Your task to perform on an android device: turn on notifications settings in the gmail app Image 0: 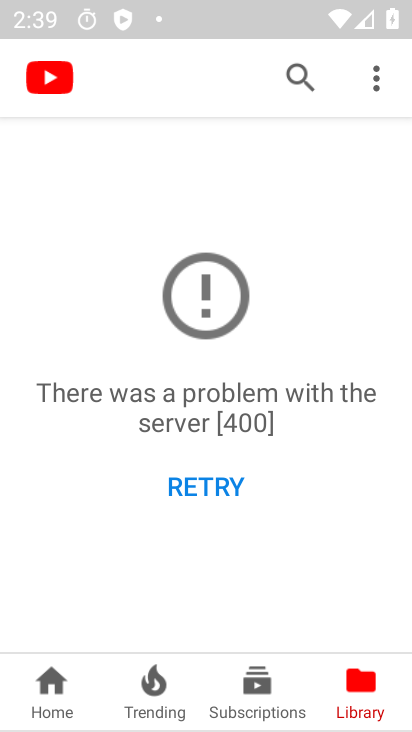
Step 0: press home button
Your task to perform on an android device: turn on notifications settings in the gmail app Image 1: 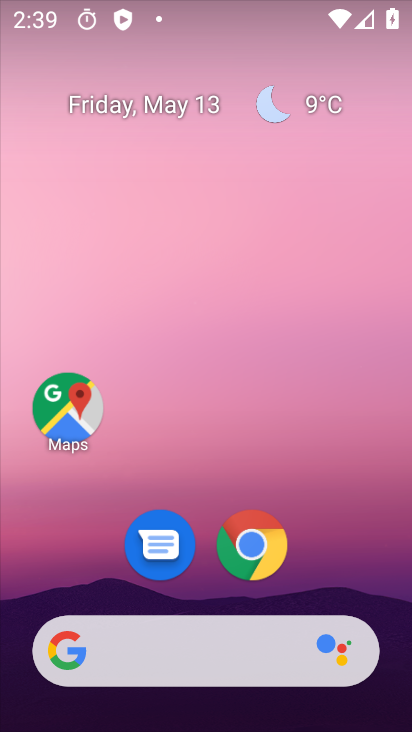
Step 1: drag from (301, 564) to (362, 146)
Your task to perform on an android device: turn on notifications settings in the gmail app Image 2: 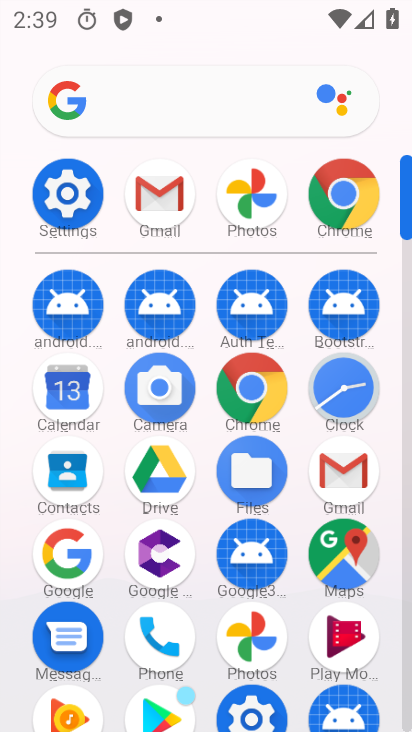
Step 2: click (346, 485)
Your task to perform on an android device: turn on notifications settings in the gmail app Image 3: 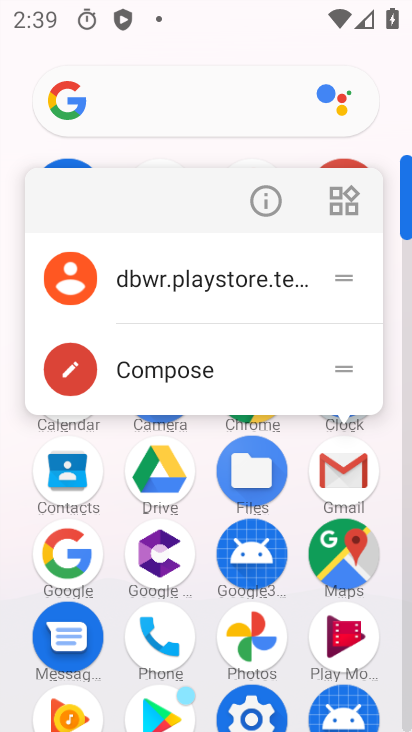
Step 3: click (268, 202)
Your task to perform on an android device: turn on notifications settings in the gmail app Image 4: 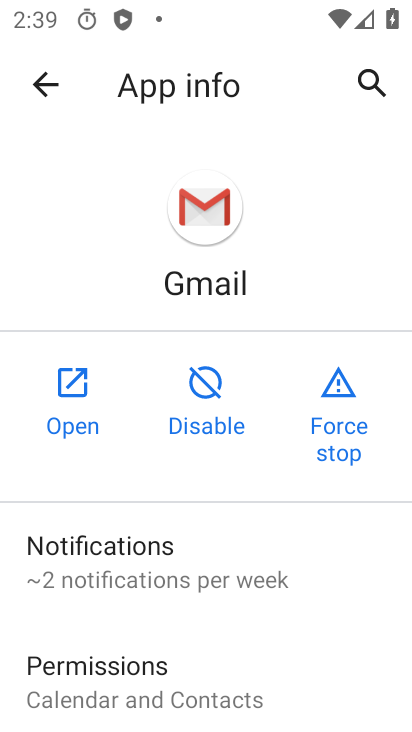
Step 4: click (99, 571)
Your task to perform on an android device: turn on notifications settings in the gmail app Image 5: 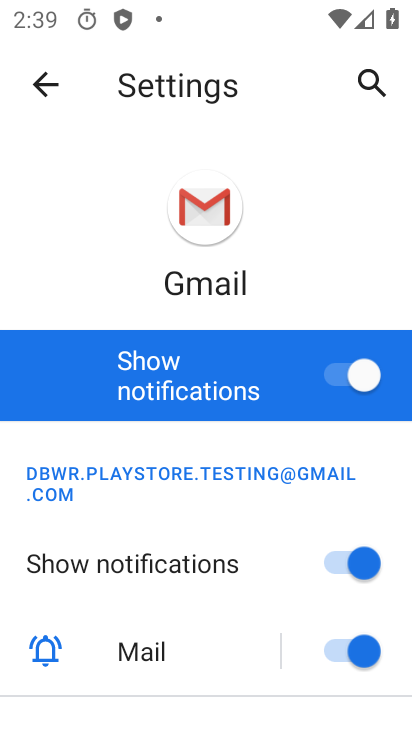
Step 5: task complete